Your task to perform on an android device: What is the news today? Image 0: 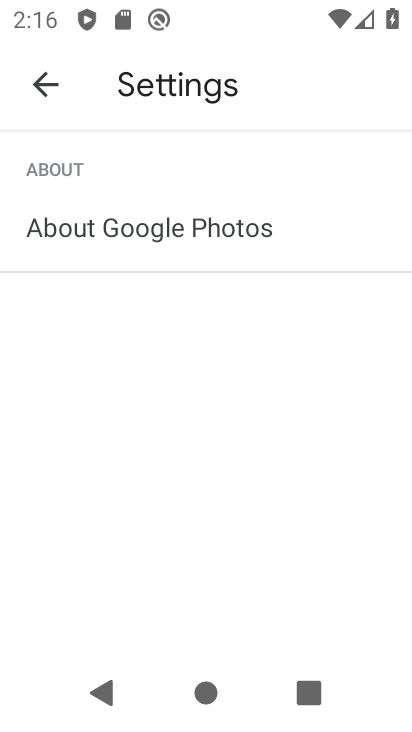
Step 0: press home button
Your task to perform on an android device: What is the news today? Image 1: 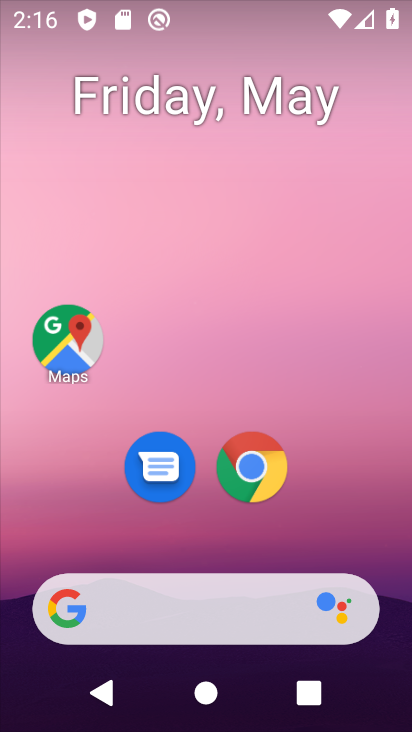
Step 1: click (182, 604)
Your task to perform on an android device: What is the news today? Image 2: 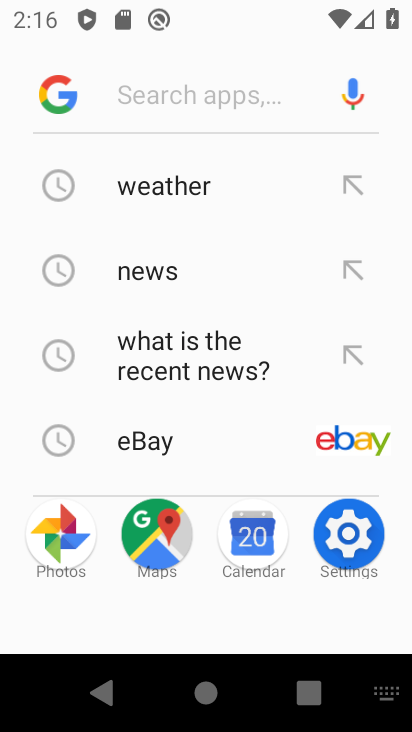
Step 2: type "what is the news today"
Your task to perform on an android device: What is the news today? Image 3: 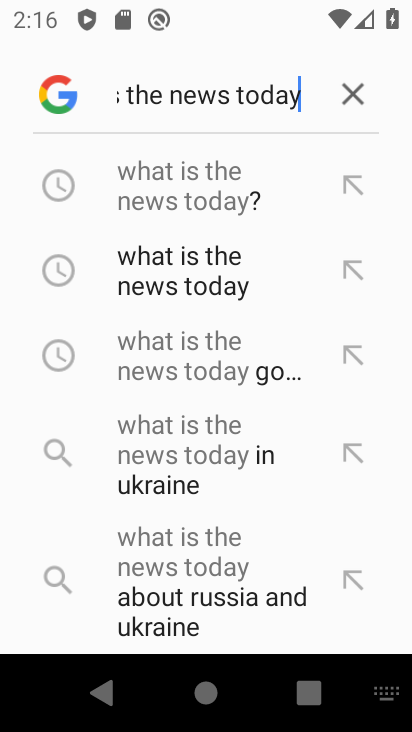
Step 3: click (210, 169)
Your task to perform on an android device: What is the news today? Image 4: 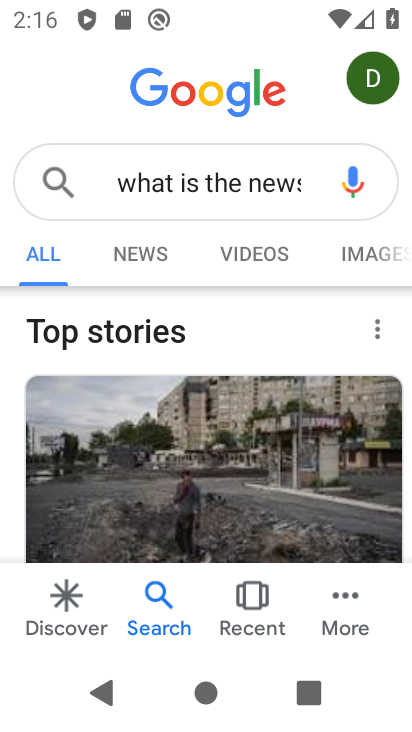
Step 4: click (127, 247)
Your task to perform on an android device: What is the news today? Image 5: 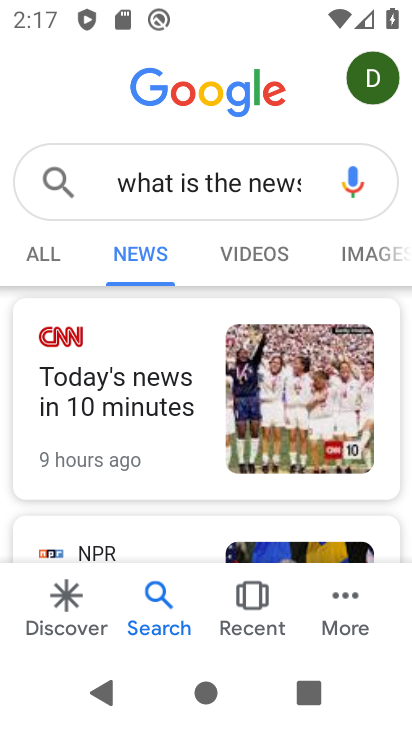
Step 5: task complete